Your task to perform on an android device: check data usage Image 0: 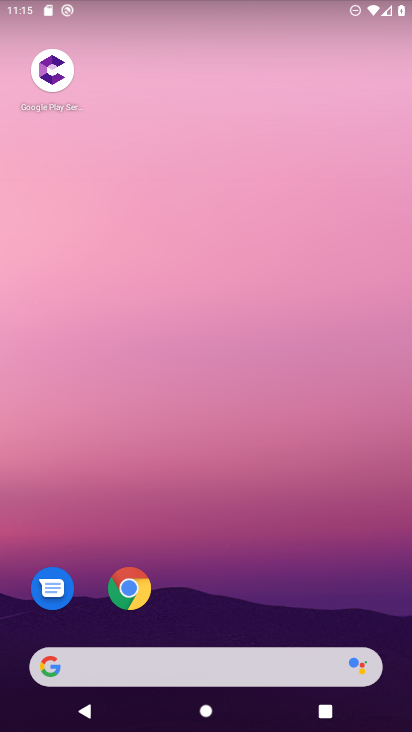
Step 0: drag from (214, 620) to (199, 41)
Your task to perform on an android device: check data usage Image 1: 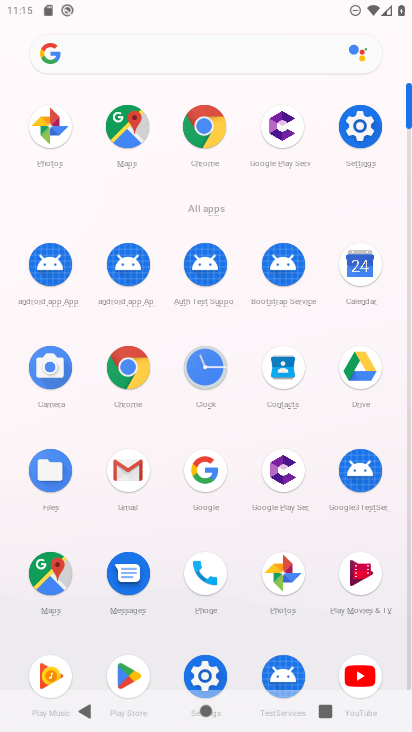
Step 1: click (360, 130)
Your task to perform on an android device: check data usage Image 2: 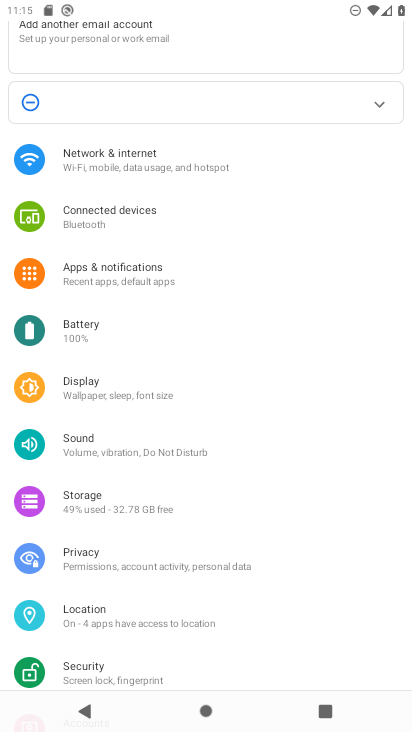
Step 2: click (154, 161)
Your task to perform on an android device: check data usage Image 3: 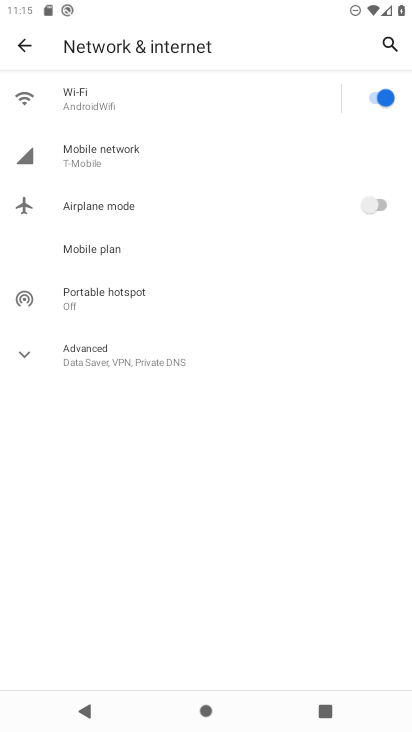
Step 3: click (137, 99)
Your task to perform on an android device: check data usage Image 4: 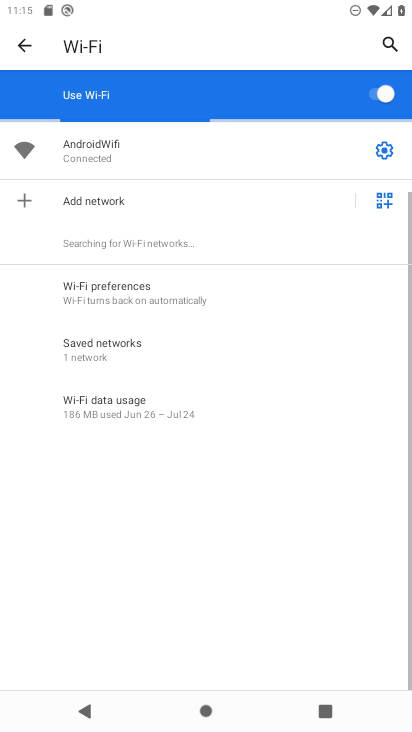
Step 4: click (140, 423)
Your task to perform on an android device: check data usage Image 5: 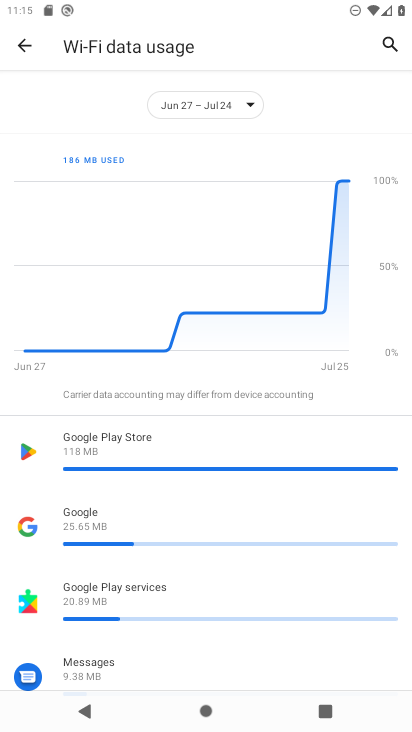
Step 5: task complete